Your task to perform on an android device: Go to internet settings Image 0: 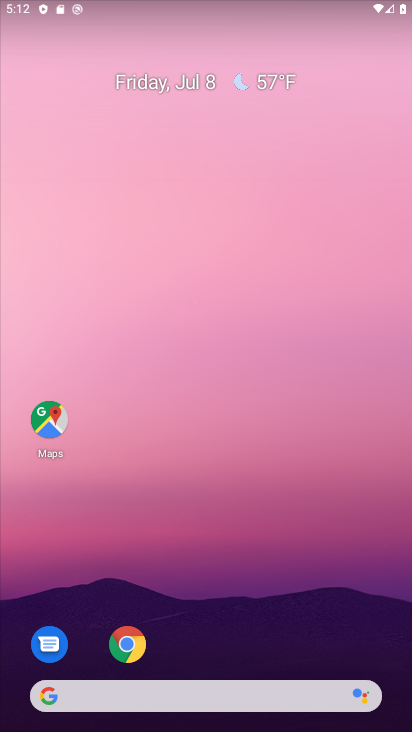
Step 0: click (184, 77)
Your task to perform on an android device: Go to internet settings Image 1: 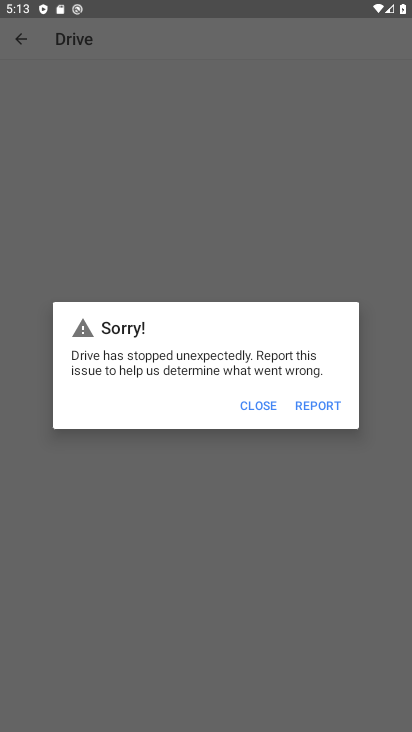
Step 1: press home button
Your task to perform on an android device: Go to internet settings Image 2: 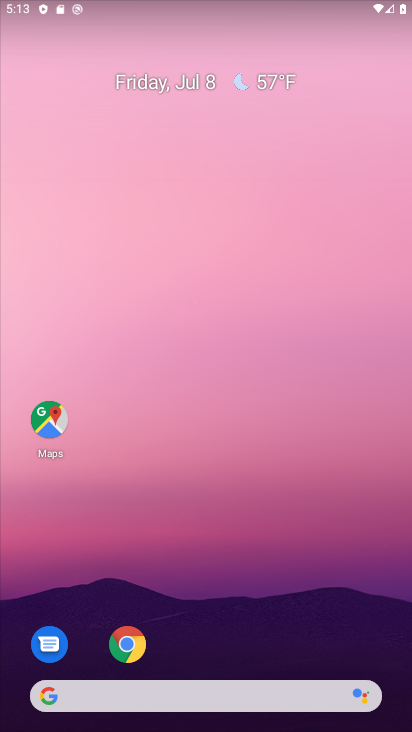
Step 2: drag from (202, 691) to (193, 44)
Your task to perform on an android device: Go to internet settings Image 3: 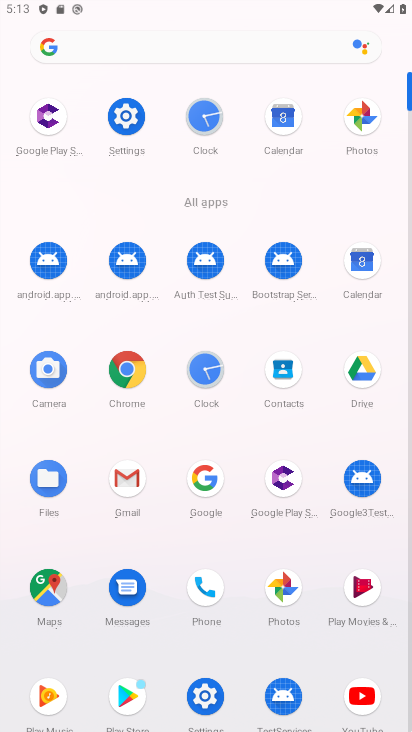
Step 3: click (125, 114)
Your task to perform on an android device: Go to internet settings Image 4: 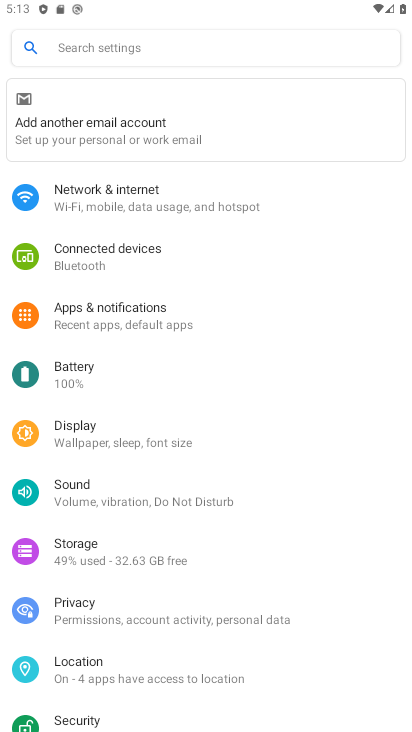
Step 4: click (117, 205)
Your task to perform on an android device: Go to internet settings Image 5: 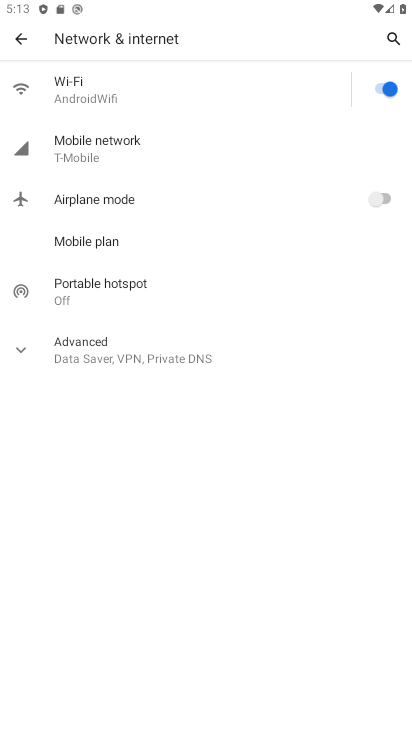
Step 5: task complete